Your task to perform on an android device: create a new album in the google photos Image 0: 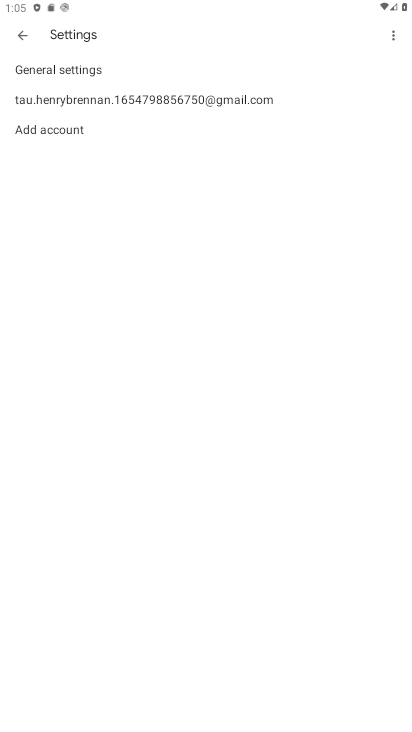
Step 0: press home button
Your task to perform on an android device: create a new album in the google photos Image 1: 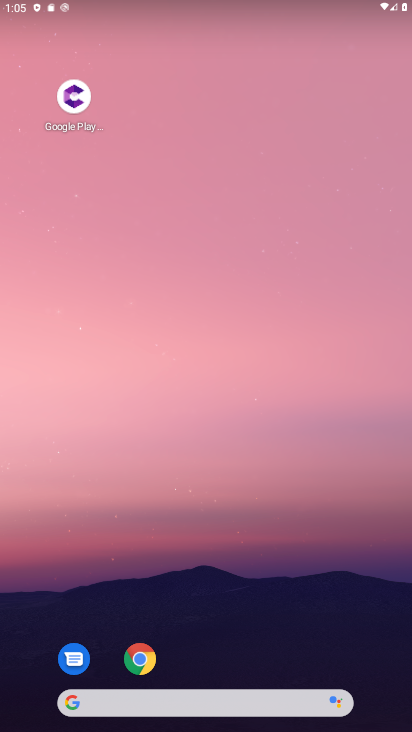
Step 1: drag from (225, 542) to (206, 12)
Your task to perform on an android device: create a new album in the google photos Image 2: 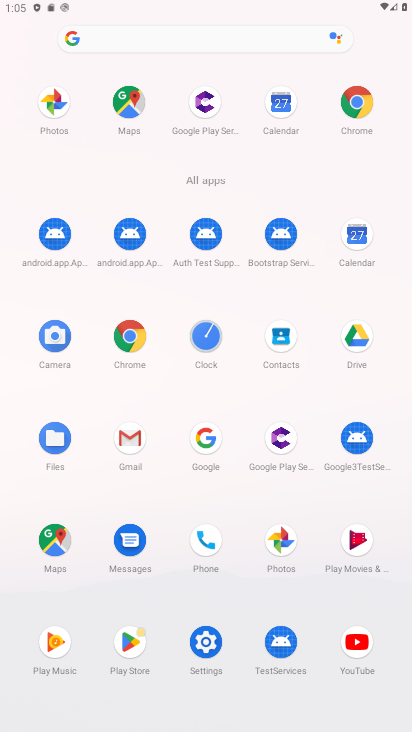
Step 2: click (283, 539)
Your task to perform on an android device: create a new album in the google photos Image 3: 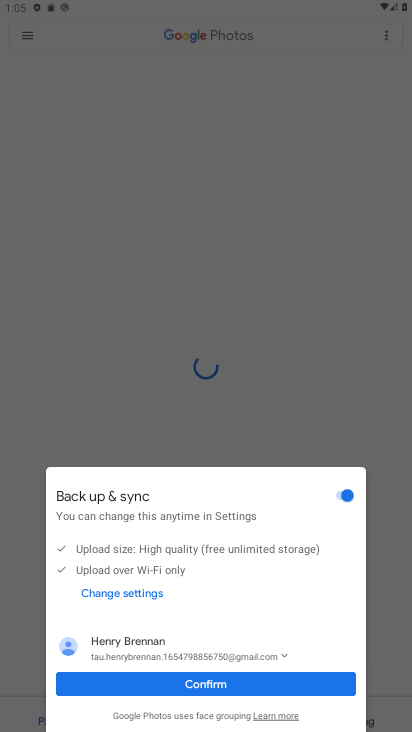
Step 3: click (199, 694)
Your task to perform on an android device: create a new album in the google photos Image 4: 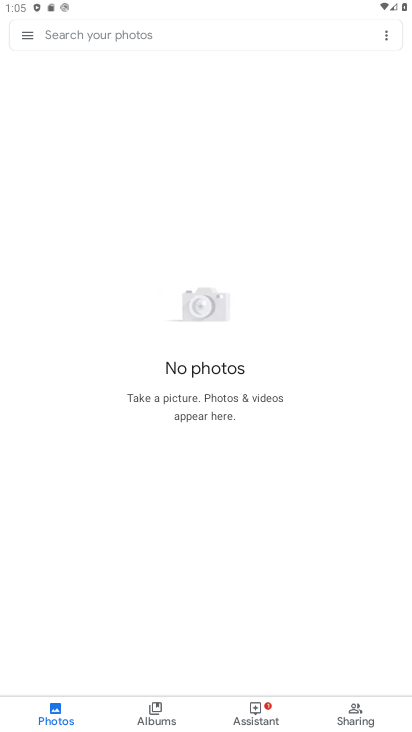
Step 4: click (155, 710)
Your task to perform on an android device: create a new album in the google photos Image 5: 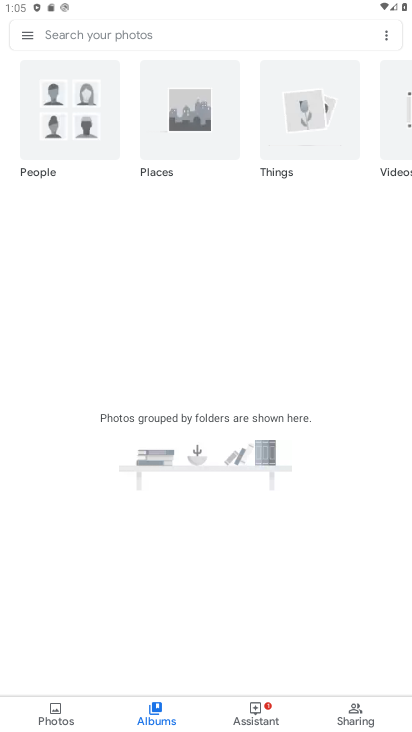
Step 5: task complete